Your task to perform on an android device: Do I have any events this weekend? Image 0: 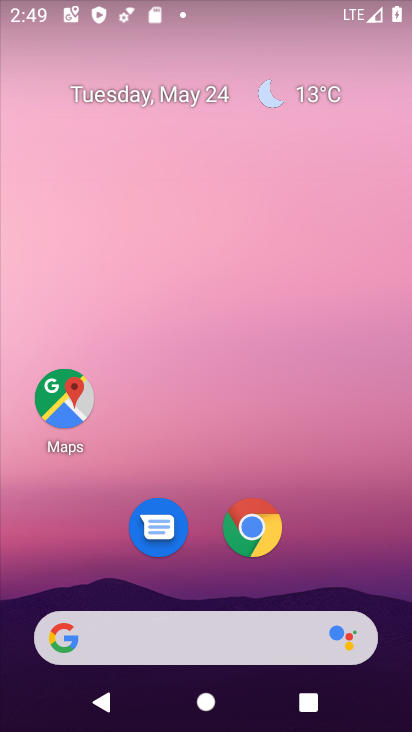
Step 0: drag from (203, 576) to (317, 21)
Your task to perform on an android device: Do I have any events this weekend? Image 1: 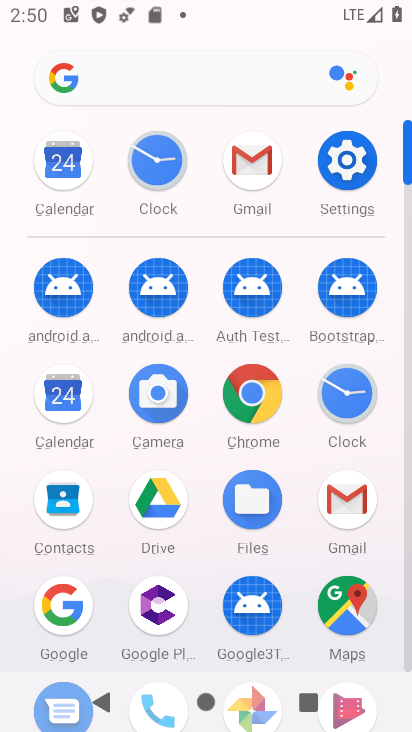
Step 1: click (49, 403)
Your task to perform on an android device: Do I have any events this weekend? Image 2: 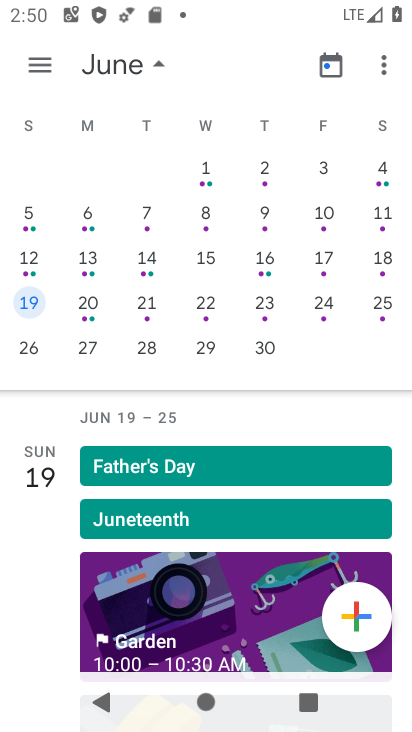
Step 2: drag from (46, 253) to (391, 254)
Your task to perform on an android device: Do I have any events this weekend? Image 3: 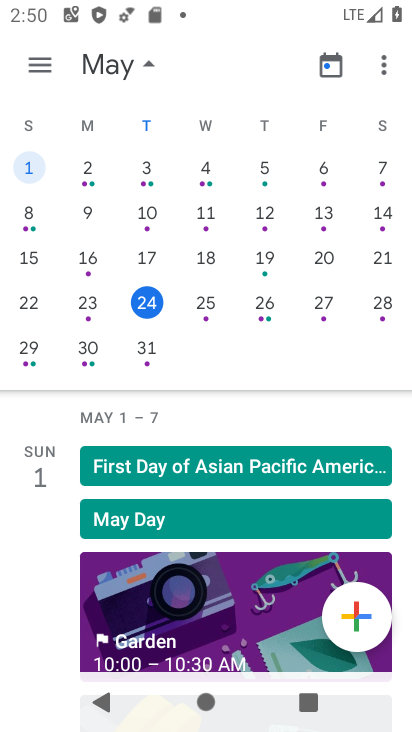
Step 3: click (386, 301)
Your task to perform on an android device: Do I have any events this weekend? Image 4: 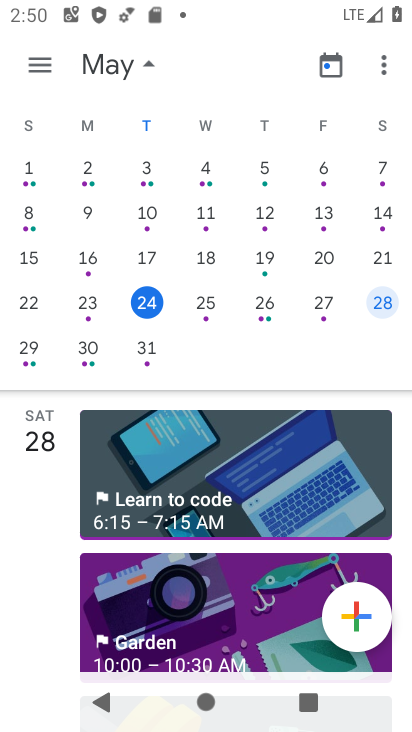
Step 4: task complete